Your task to perform on an android device: turn on priority inbox in the gmail app Image 0: 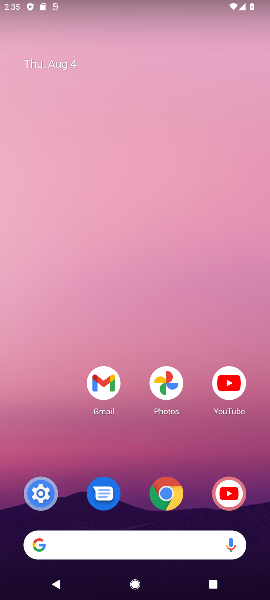
Step 0: drag from (138, 511) to (190, 195)
Your task to perform on an android device: turn on priority inbox in the gmail app Image 1: 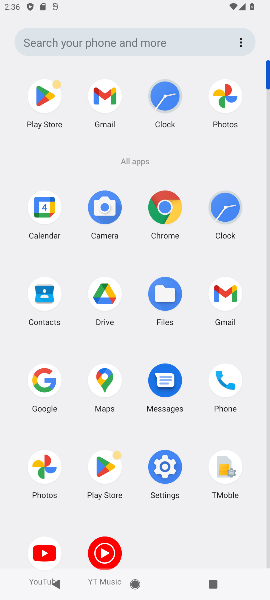
Step 1: click (99, 112)
Your task to perform on an android device: turn on priority inbox in the gmail app Image 2: 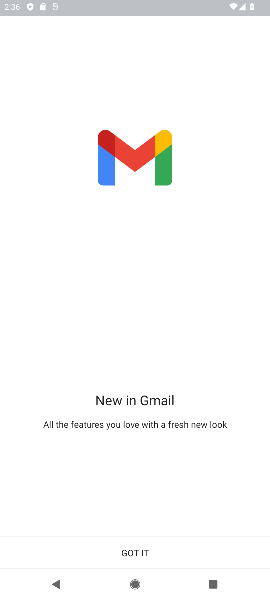
Step 2: click (148, 549)
Your task to perform on an android device: turn on priority inbox in the gmail app Image 3: 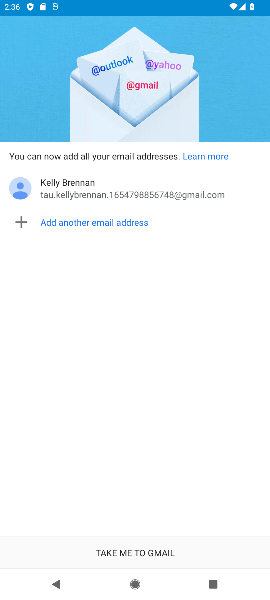
Step 3: click (109, 548)
Your task to perform on an android device: turn on priority inbox in the gmail app Image 4: 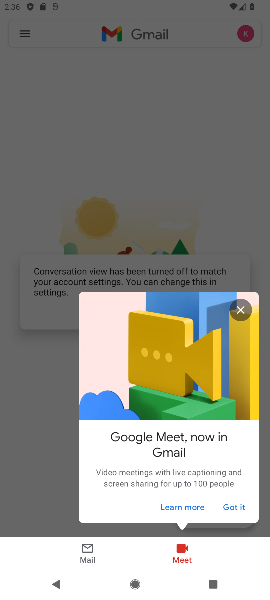
Step 4: click (225, 502)
Your task to perform on an android device: turn on priority inbox in the gmail app Image 5: 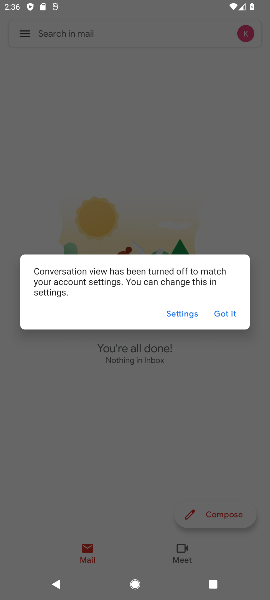
Step 5: click (236, 318)
Your task to perform on an android device: turn on priority inbox in the gmail app Image 6: 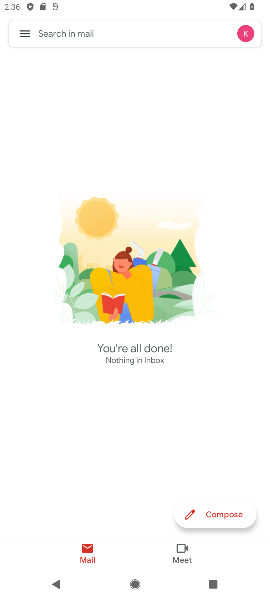
Step 6: click (18, 33)
Your task to perform on an android device: turn on priority inbox in the gmail app Image 7: 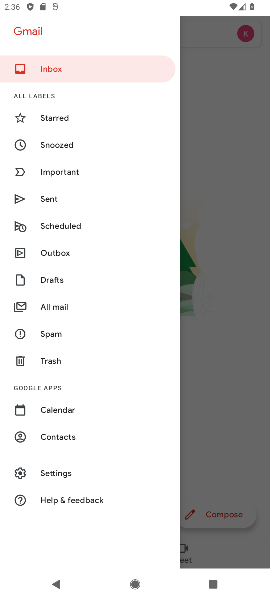
Step 7: click (64, 471)
Your task to perform on an android device: turn on priority inbox in the gmail app Image 8: 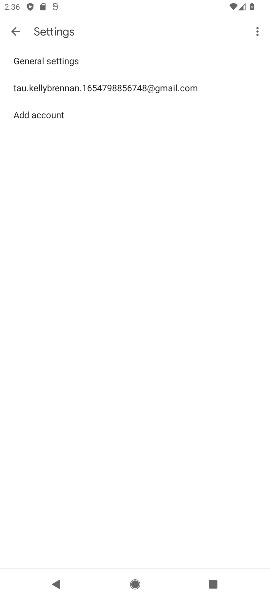
Step 8: click (79, 88)
Your task to perform on an android device: turn on priority inbox in the gmail app Image 9: 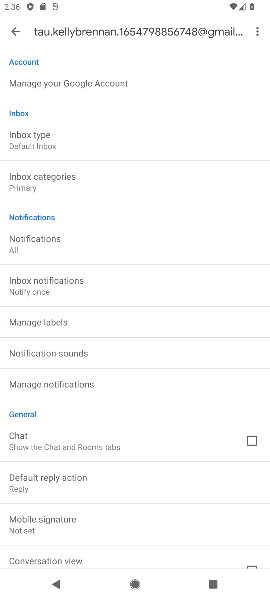
Step 9: click (27, 135)
Your task to perform on an android device: turn on priority inbox in the gmail app Image 10: 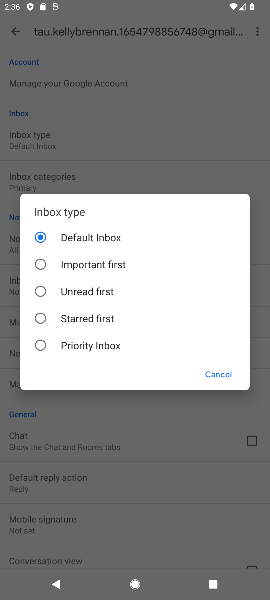
Step 10: click (74, 341)
Your task to perform on an android device: turn on priority inbox in the gmail app Image 11: 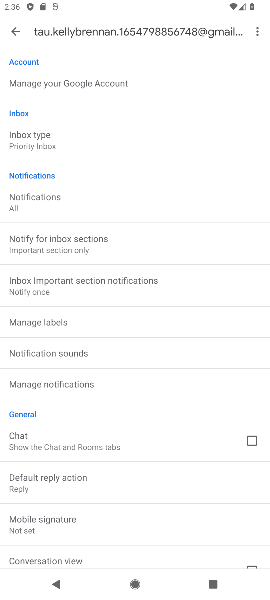
Step 11: task complete